Your task to perform on an android device: visit the assistant section in the google photos Image 0: 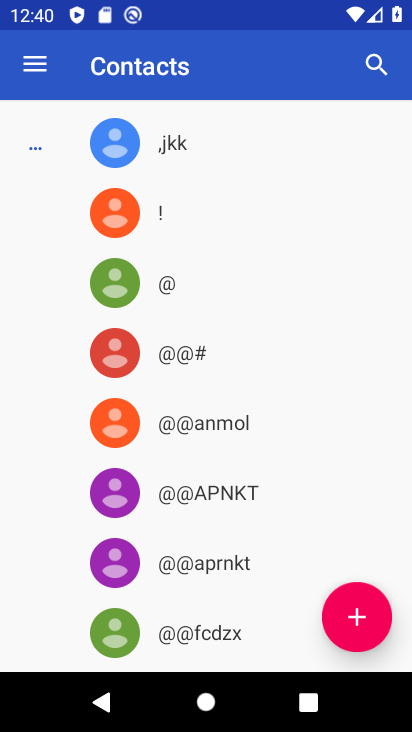
Step 0: press home button
Your task to perform on an android device: visit the assistant section in the google photos Image 1: 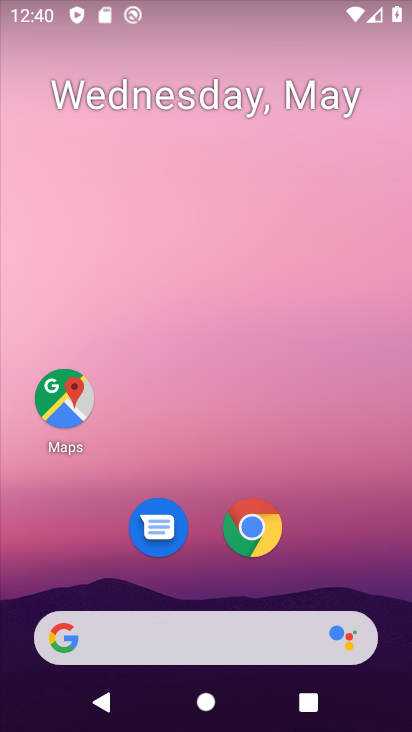
Step 1: drag from (199, 601) to (225, 122)
Your task to perform on an android device: visit the assistant section in the google photos Image 2: 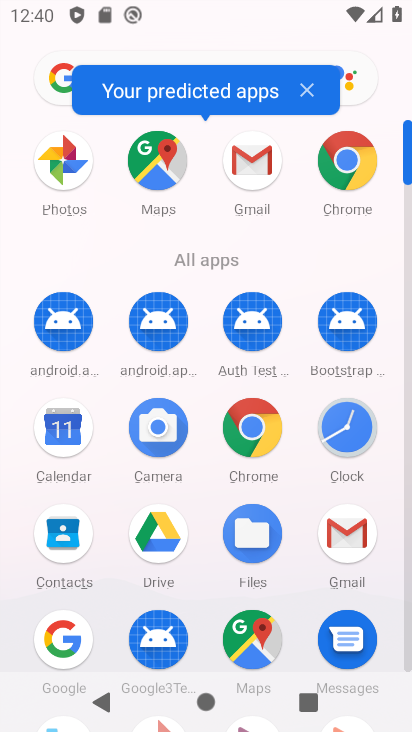
Step 2: click (69, 173)
Your task to perform on an android device: visit the assistant section in the google photos Image 3: 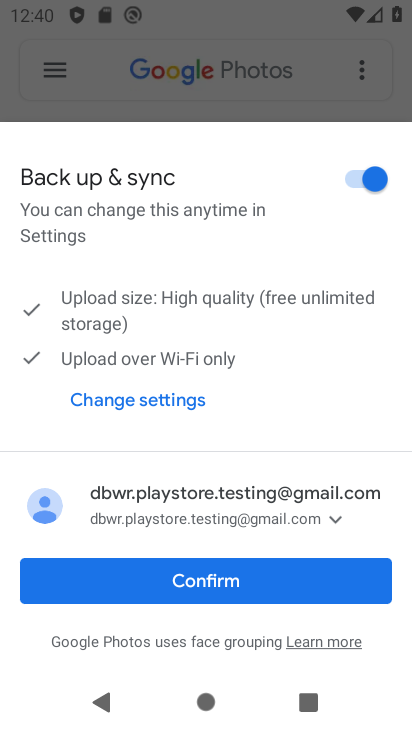
Step 3: click (232, 594)
Your task to perform on an android device: visit the assistant section in the google photos Image 4: 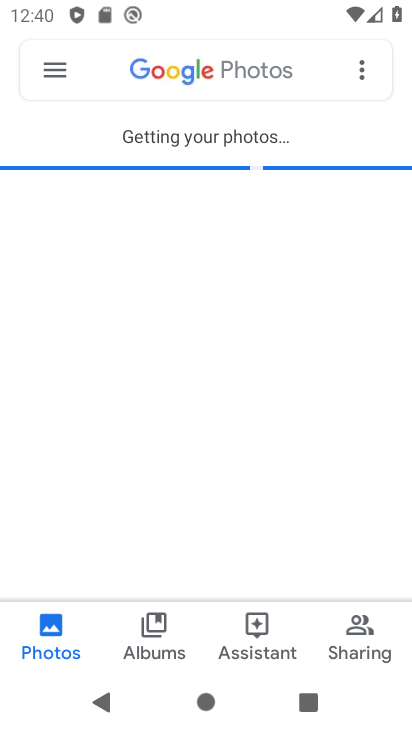
Step 4: click (259, 641)
Your task to perform on an android device: visit the assistant section in the google photos Image 5: 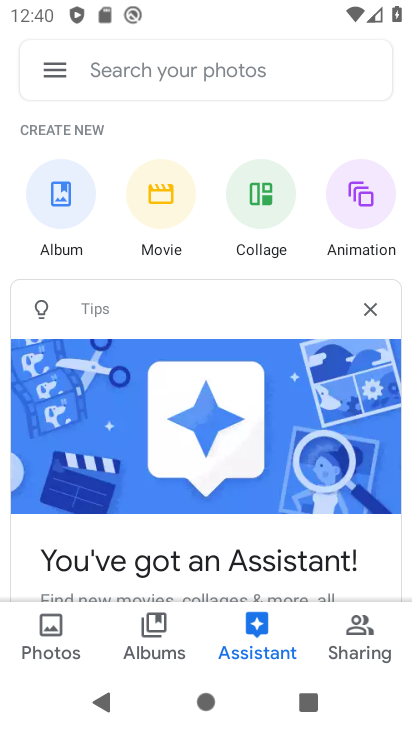
Step 5: task complete